Your task to perform on an android device: Search for "logitech g pro" on ebay, select the first entry, and add it to the cart. Image 0: 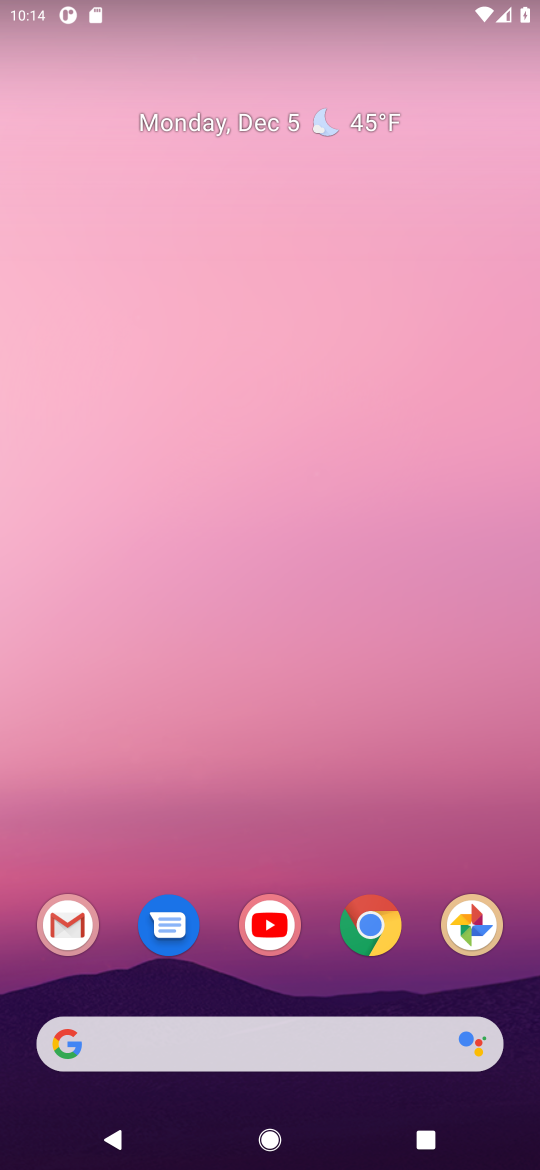
Step 0: click (373, 933)
Your task to perform on an android device: Search for "logitech g pro" on ebay, select the first entry, and add it to the cart. Image 1: 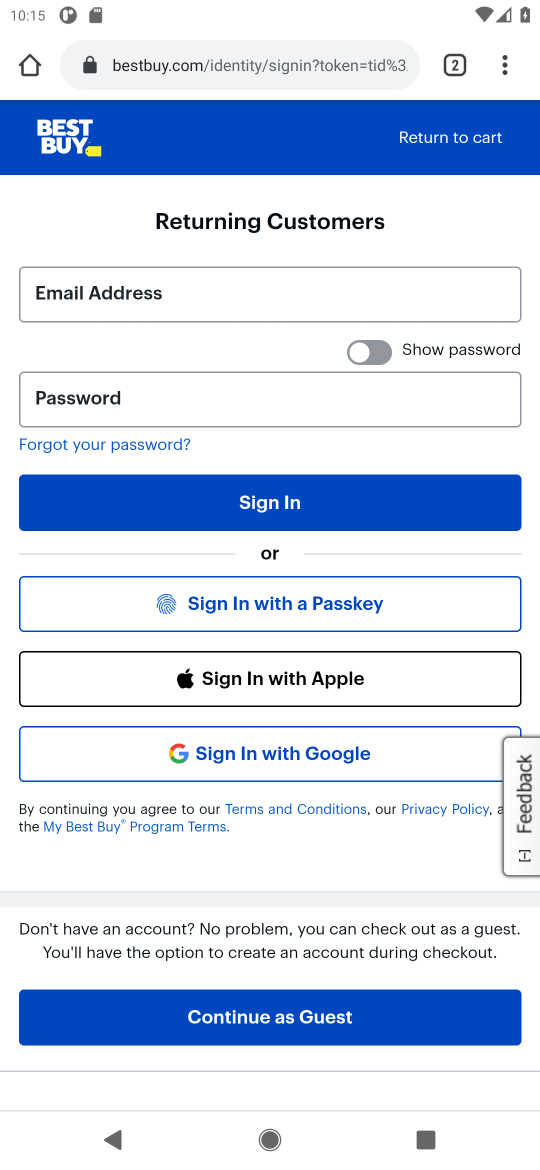
Step 1: click (181, 67)
Your task to perform on an android device: Search for "logitech g pro" on ebay, select the first entry, and add it to the cart. Image 2: 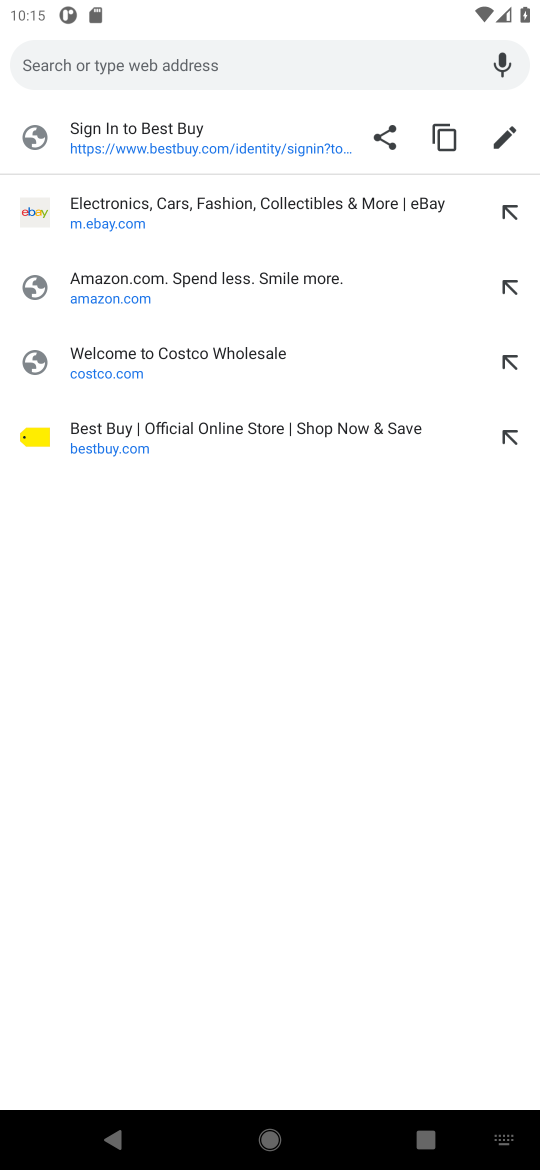
Step 2: click (112, 211)
Your task to perform on an android device: Search for "logitech g pro" on ebay, select the first entry, and add it to the cart. Image 3: 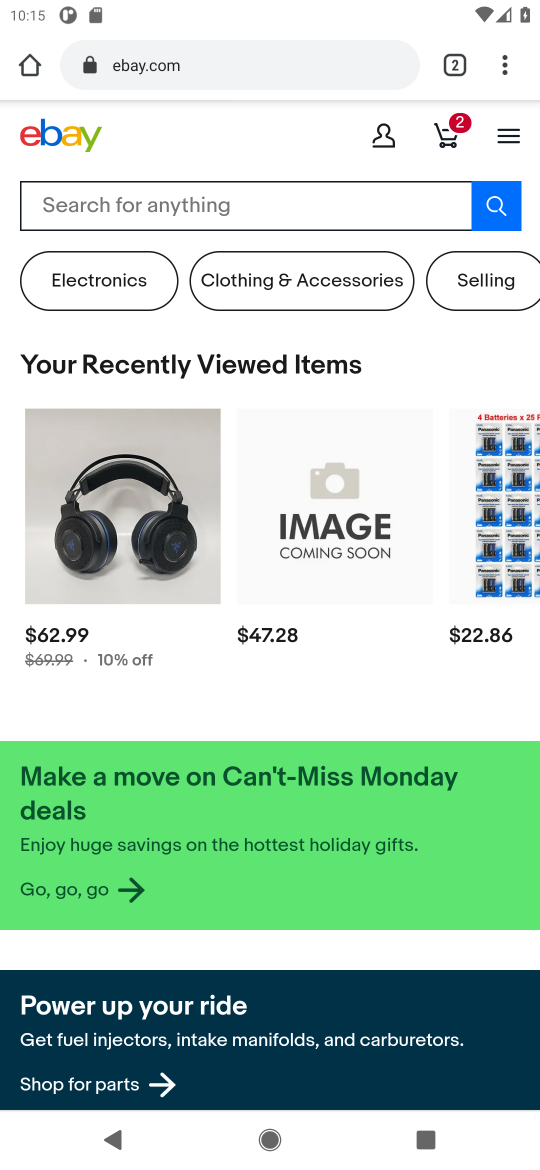
Step 3: click (106, 207)
Your task to perform on an android device: Search for "logitech g pro" on ebay, select the first entry, and add it to the cart. Image 4: 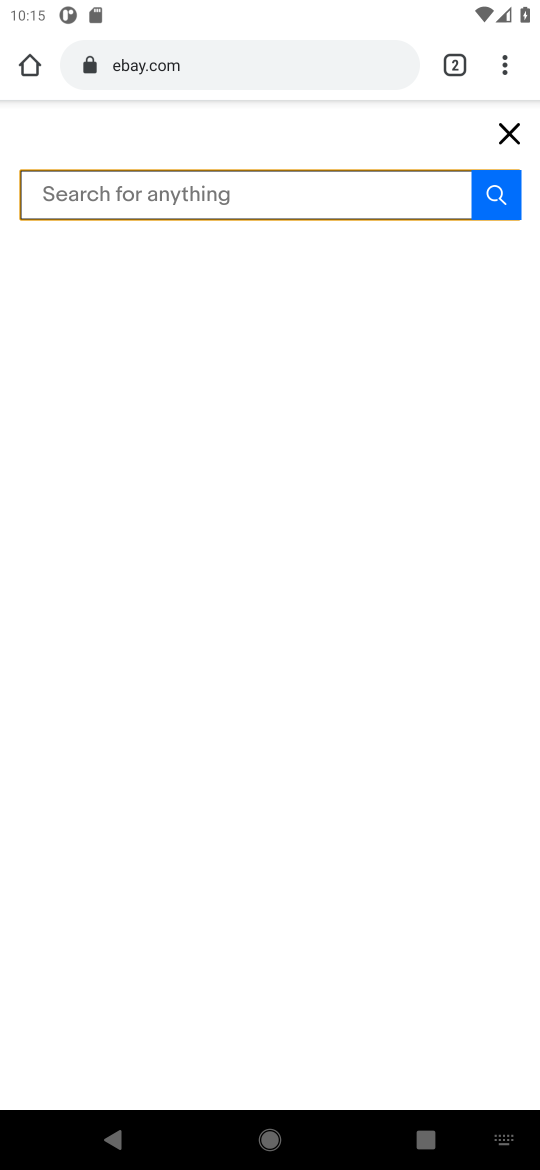
Step 4: type "logitech g pro"
Your task to perform on an android device: Search for "logitech g pro" on ebay, select the first entry, and add it to the cart. Image 5: 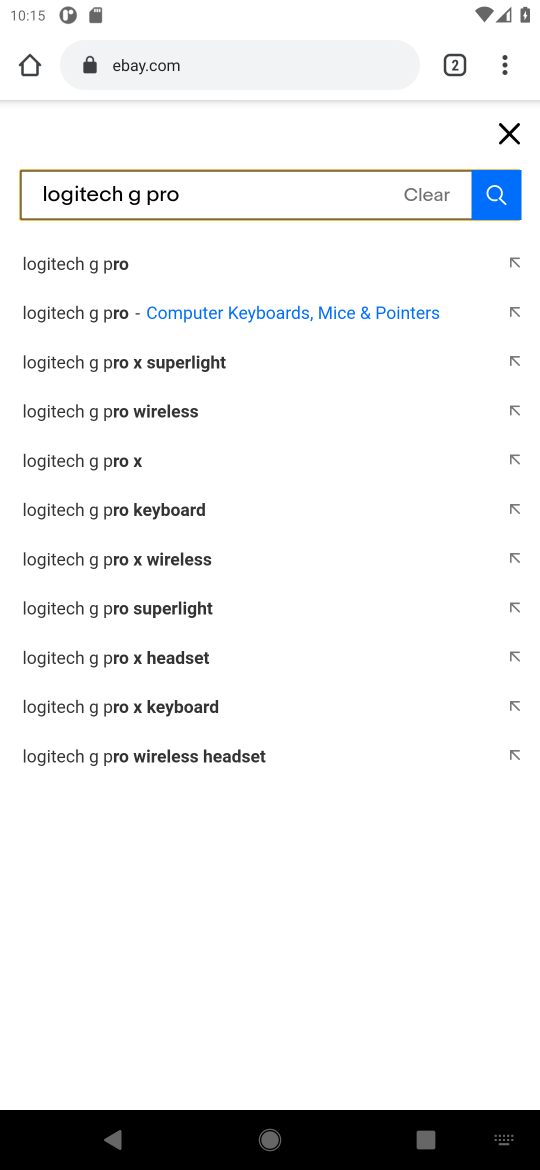
Step 5: click (62, 274)
Your task to perform on an android device: Search for "logitech g pro" on ebay, select the first entry, and add it to the cart. Image 6: 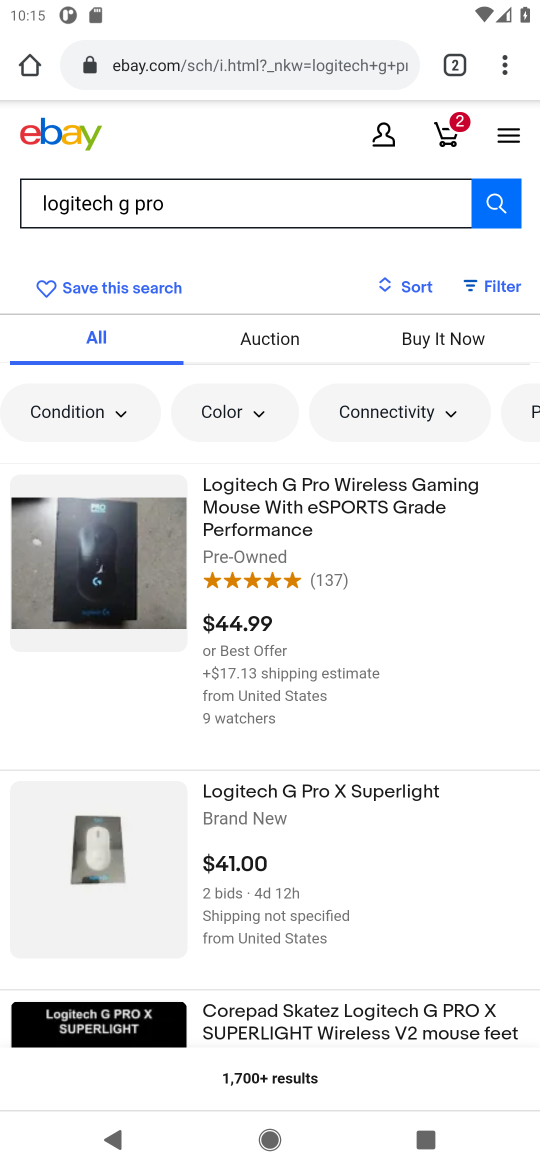
Step 6: click (315, 518)
Your task to perform on an android device: Search for "logitech g pro" on ebay, select the first entry, and add it to the cart. Image 7: 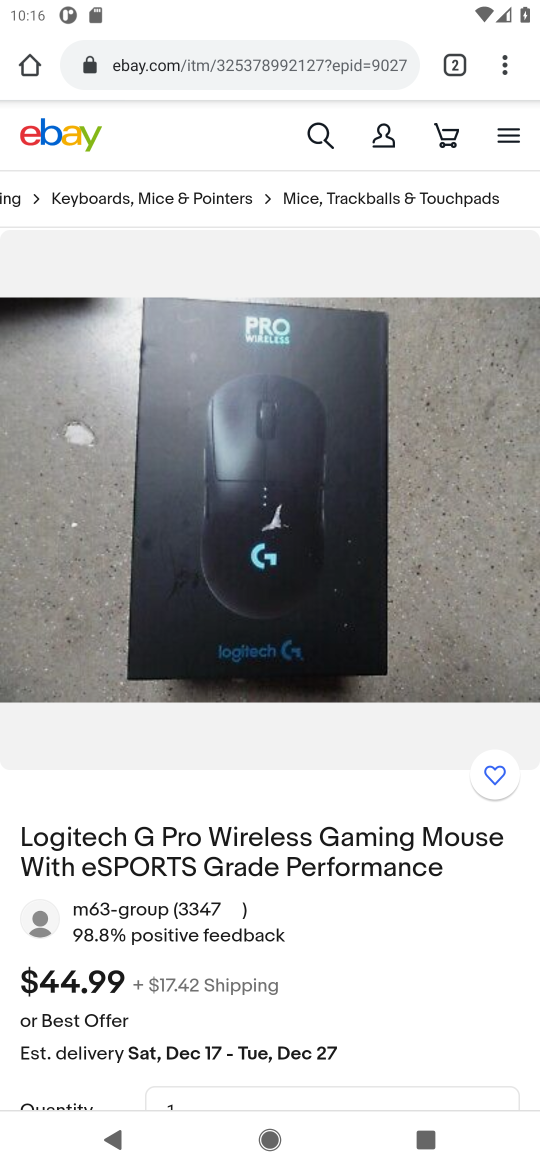
Step 7: drag from (292, 804) to (277, 305)
Your task to perform on an android device: Search for "logitech g pro" on ebay, select the first entry, and add it to the cart. Image 8: 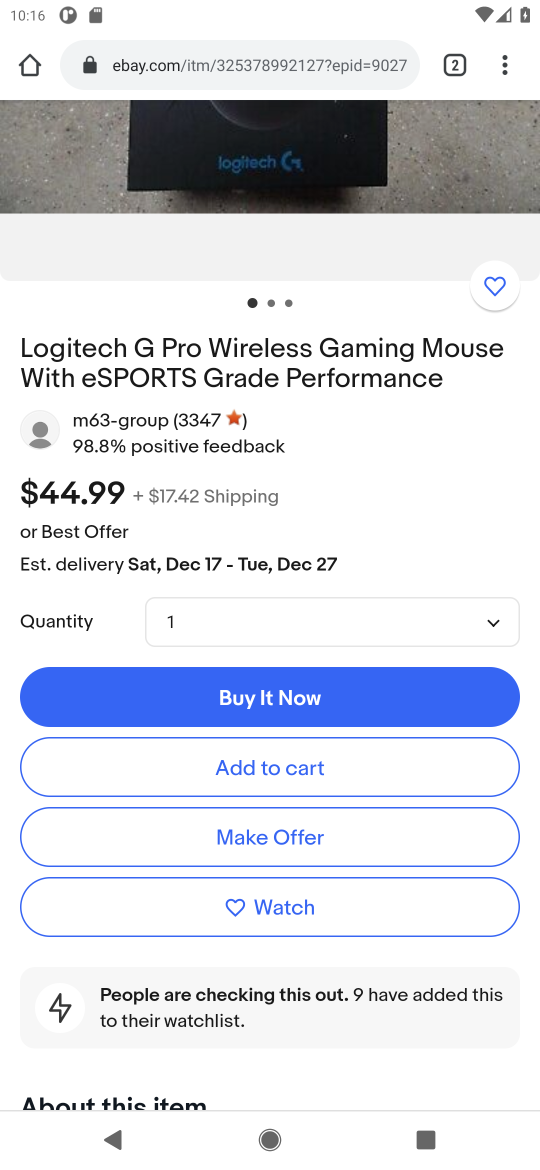
Step 8: click (233, 771)
Your task to perform on an android device: Search for "logitech g pro" on ebay, select the first entry, and add it to the cart. Image 9: 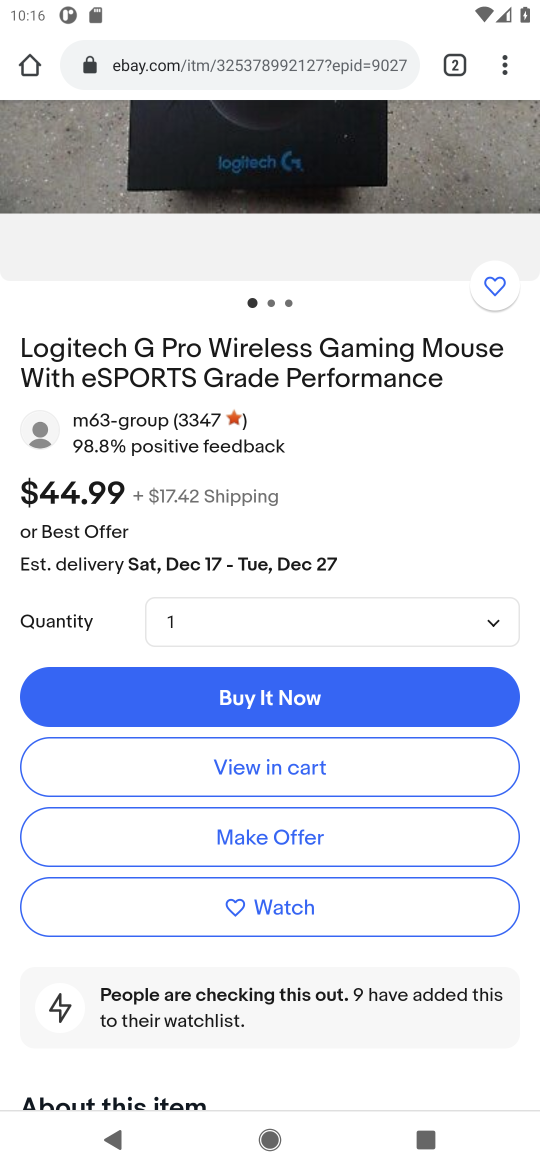
Step 9: task complete